Your task to perform on an android device: Open the calendar and show me this week's events? Image 0: 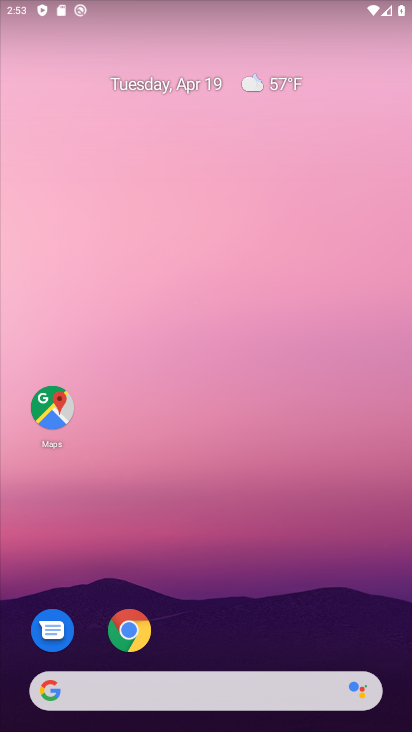
Step 0: drag from (192, 610) to (194, 265)
Your task to perform on an android device: Open the calendar and show me this week's events? Image 1: 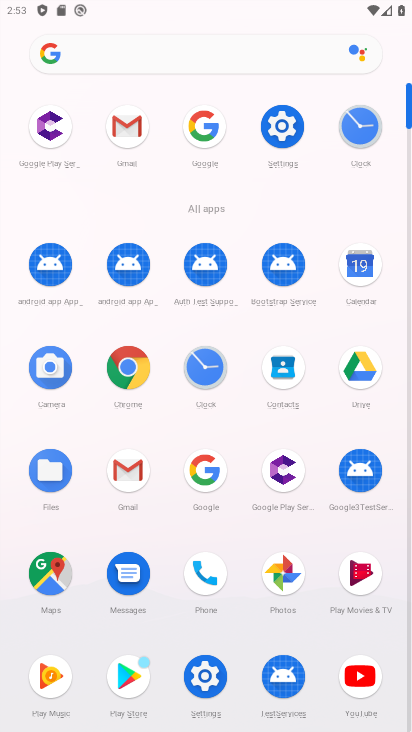
Step 1: click (356, 271)
Your task to perform on an android device: Open the calendar and show me this week's events? Image 2: 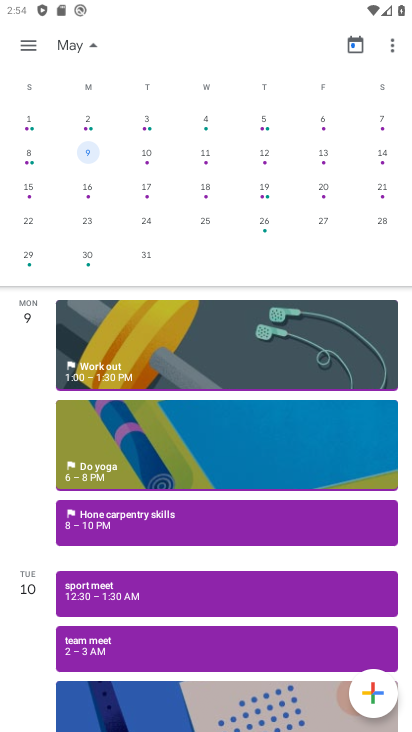
Step 2: click (267, 151)
Your task to perform on an android device: Open the calendar and show me this week's events? Image 3: 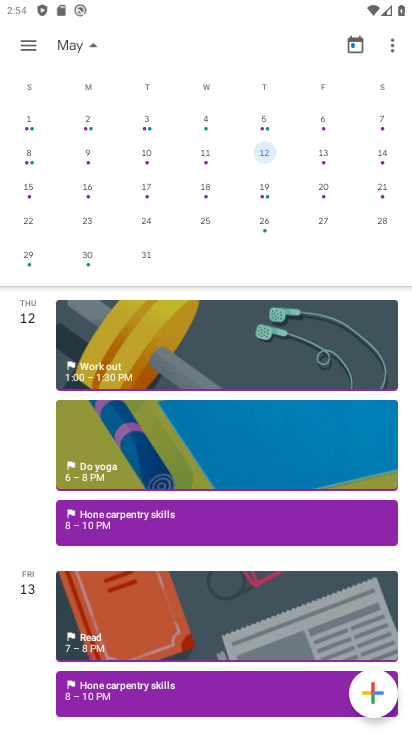
Step 3: click (188, 453)
Your task to perform on an android device: Open the calendar and show me this week's events? Image 4: 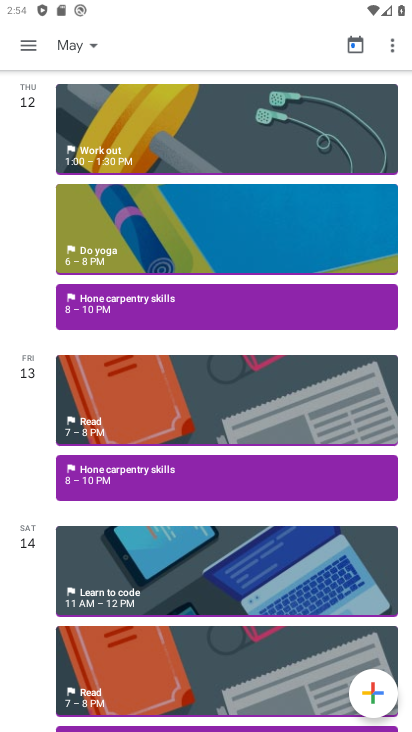
Step 4: task complete